Your task to perform on an android device: Open the map Image 0: 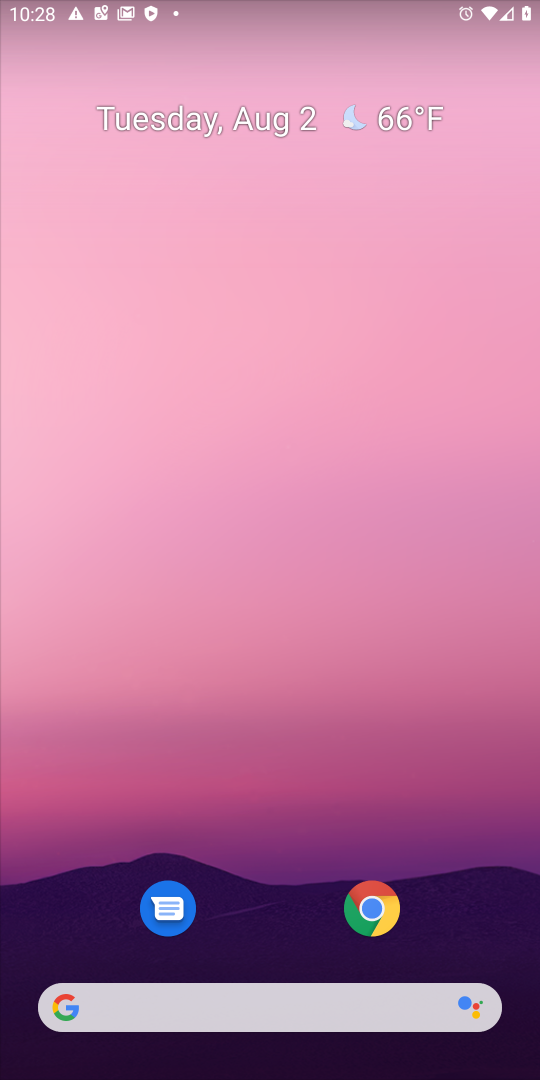
Step 0: drag from (293, 613) to (244, 50)
Your task to perform on an android device: Open the map Image 1: 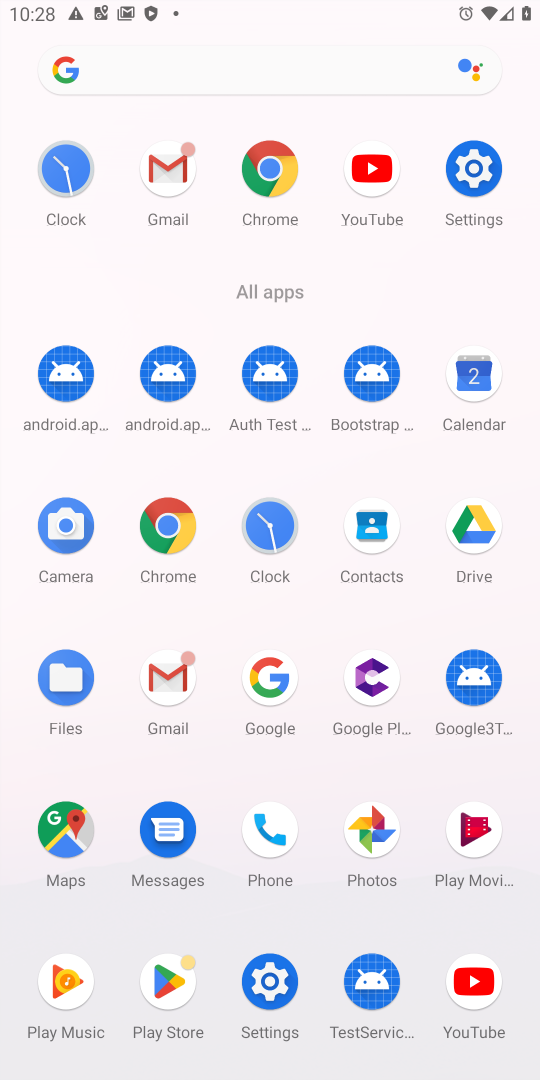
Step 1: click (78, 842)
Your task to perform on an android device: Open the map Image 2: 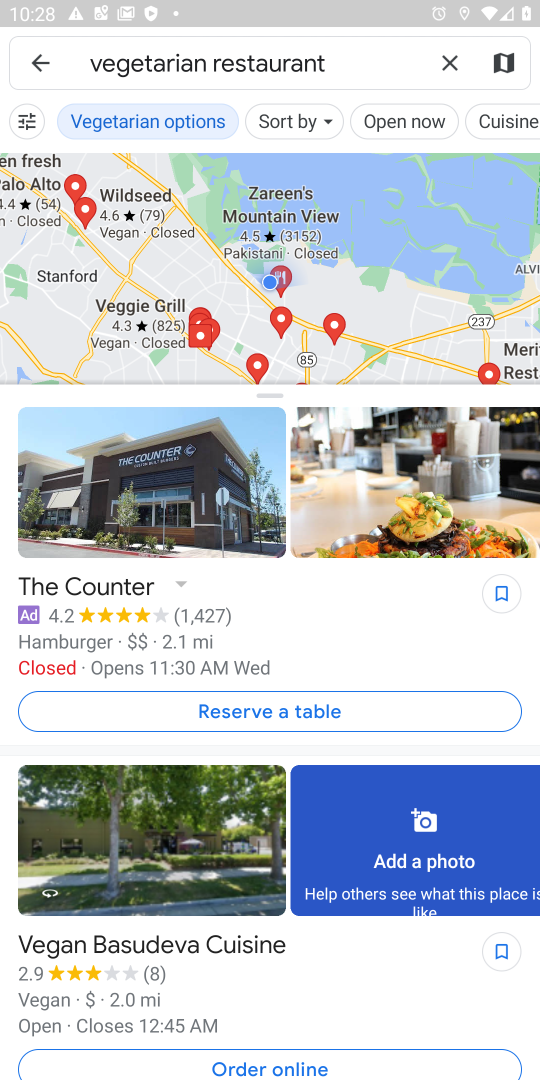
Step 2: task complete